Your task to perform on an android device: Show the shopping cart on target. Search for dell alienware on target, select the first entry, add it to the cart, then select checkout. Image 0: 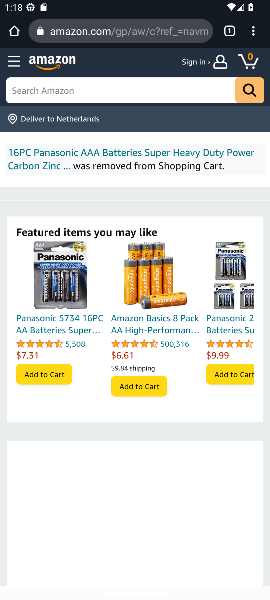
Step 0: press home button
Your task to perform on an android device: Show the shopping cart on target. Search for dell alienware on target, select the first entry, add it to the cart, then select checkout. Image 1: 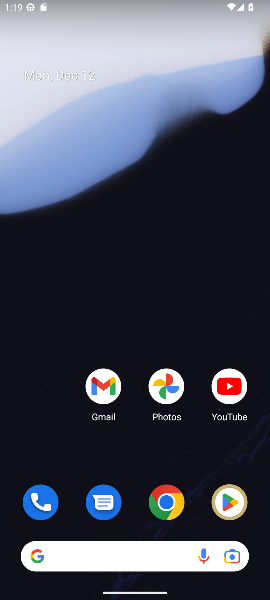
Step 1: click (160, 511)
Your task to perform on an android device: Show the shopping cart on target. Search for dell alienware on target, select the first entry, add it to the cart, then select checkout. Image 2: 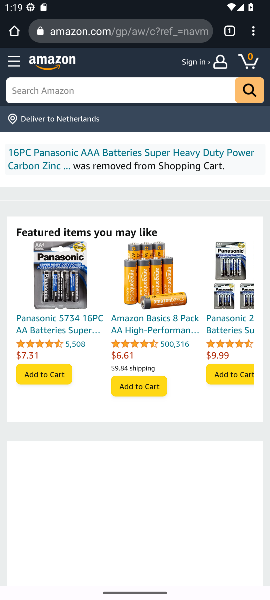
Step 2: click (105, 29)
Your task to perform on an android device: Show the shopping cart on target. Search for dell alienware on target, select the first entry, add it to the cart, then select checkout. Image 3: 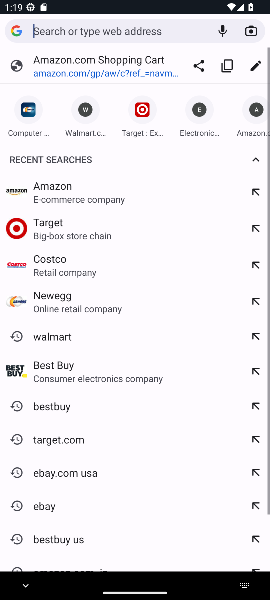
Step 3: click (66, 229)
Your task to perform on an android device: Show the shopping cart on target. Search for dell alienware on target, select the first entry, add it to the cart, then select checkout. Image 4: 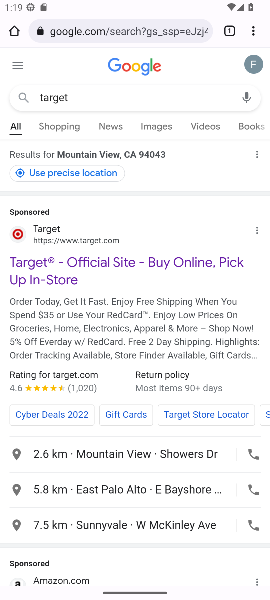
Step 4: click (62, 263)
Your task to perform on an android device: Show the shopping cart on target. Search for dell alienware on target, select the first entry, add it to the cart, then select checkout. Image 5: 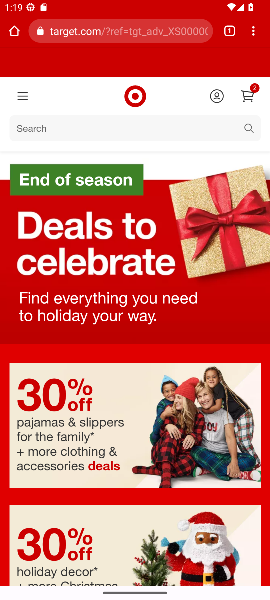
Step 5: click (103, 121)
Your task to perform on an android device: Show the shopping cart on target. Search for dell alienware on target, select the first entry, add it to the cart, then select checkout. Image 6: 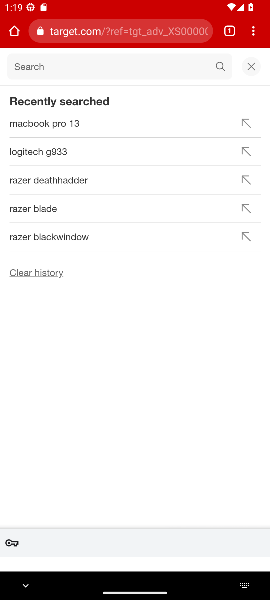
Step 6: click (248, 67)
Your task to perform on an android device: Show the shopping cart on target. Search for dell alienware on target, select the first entry, add it to the cart, then select checkout. Image 7: 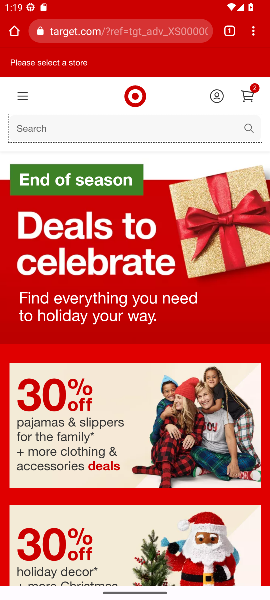
Step 7: click (257, 88)
Your task to perform on an android device: Show the shopping cart on target. Search for dell alienware on target, select the first entry, add it to the cart, then select checkout. Image 8: 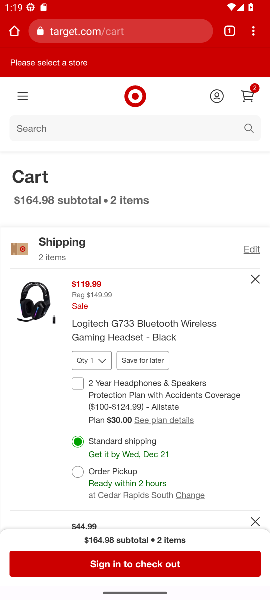
Step 8: click (253, 281)
Your task to perform on an android device: Show the shopping cart on target. Search for dell alienware on target, select the first entry, add it to the cart, then select checkout. Image 9: 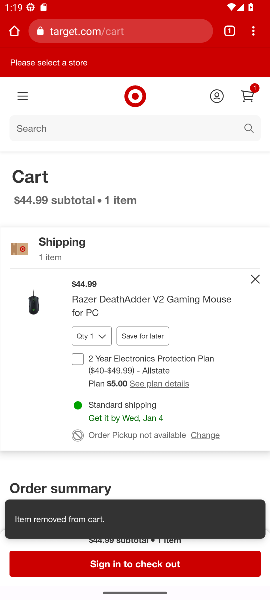
Step 9: click (249, 284)
Your task to perform on an android device: Show the shopping cart on target. Search for dell alienware on target, select the first entry, add it to the cart, then select checkout. Image 10: 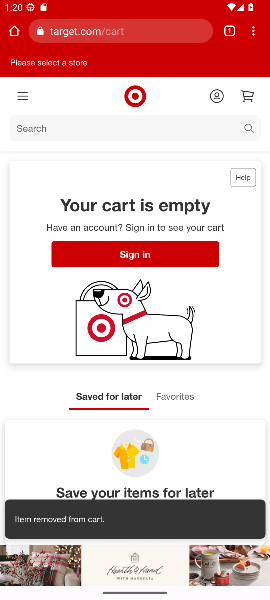
Step 10: task complete